Your task to perform on an android device: Open eBay Image 0: 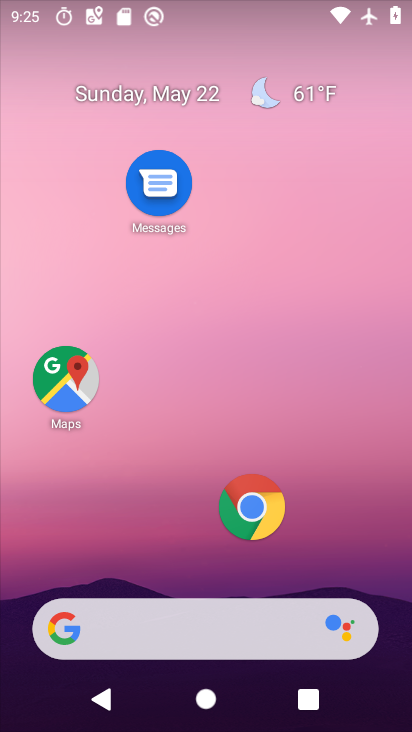
Step 0: click (253, 485)
Your task to perform on an android device: Open eBay Image 1: 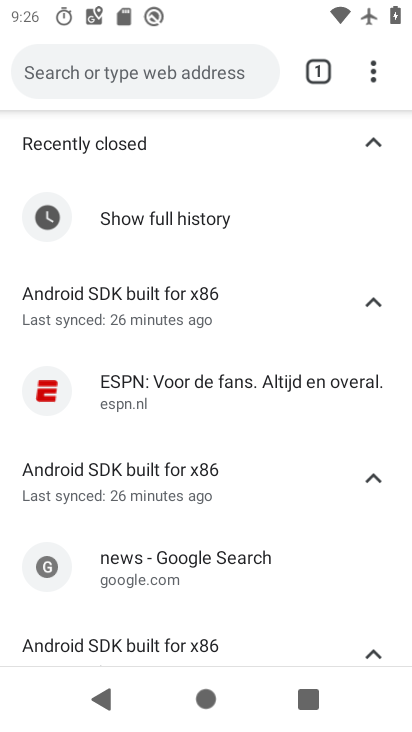
Step 1: click (139, 62)
Your task to perform on an android device: Open eBay Image 2: 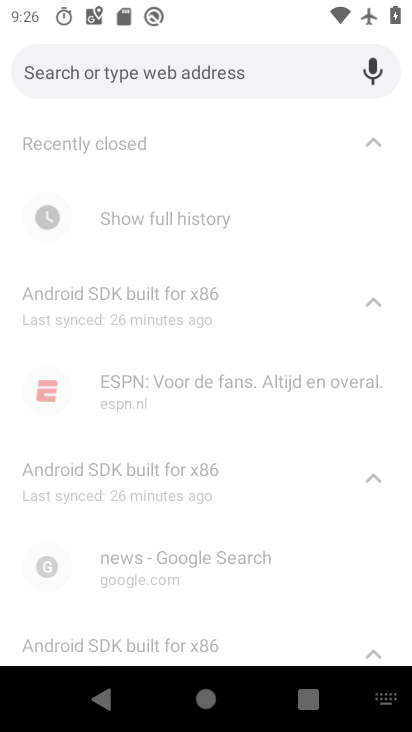
Step 2: drag from (215, 12) to (50, 603)
Your task to perform on an android device: Open eBay Image 3: 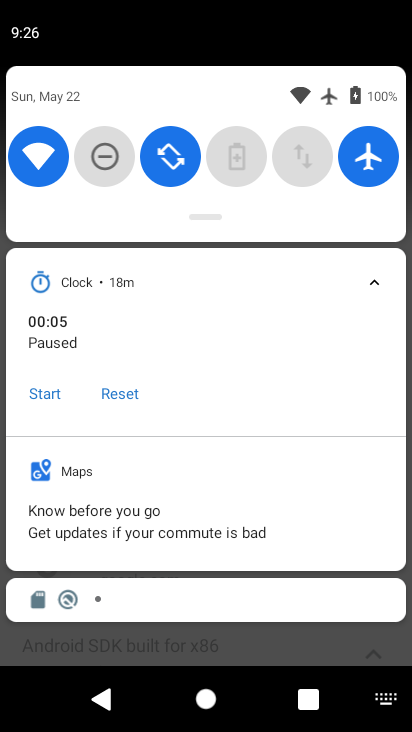
Step 3: click (354, 164)
Your task to perform on an android device: Open eBay Image 4: 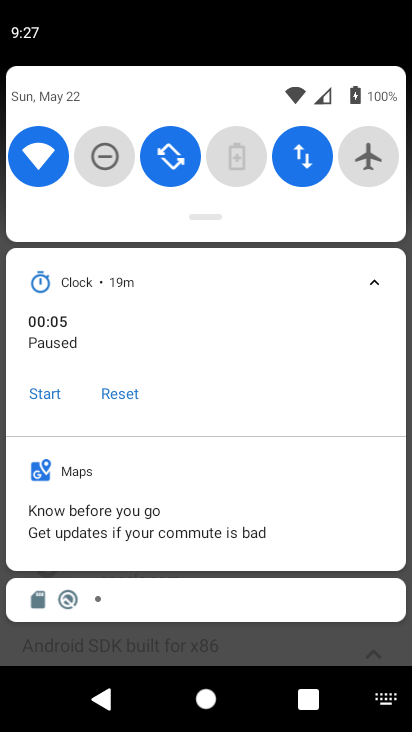
Step 4: task complete